Your task to perform on an android device: Open the phone app and click the voicemail tab. Image 0: 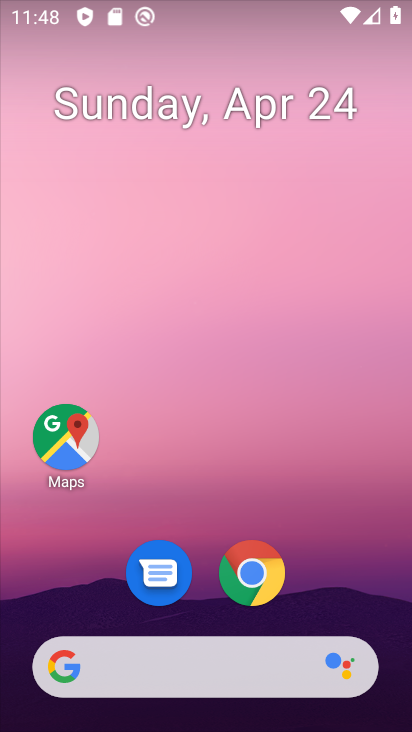
Step 0: drag from (323, 566) to (262, 20)
Your task to perform on an android device: Open the phone app and click the voicemail tab. Image 1: 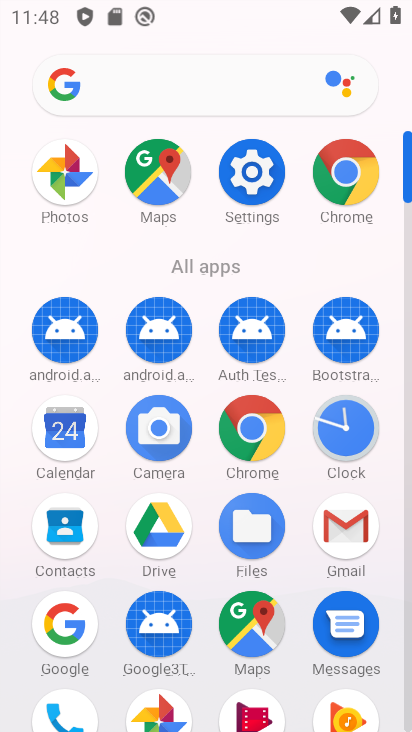
Step 1: drag from (386, 616) to (361, 274)
Your task to perform on an android device: Open the phone app and click the voicemail tab. Image 2: 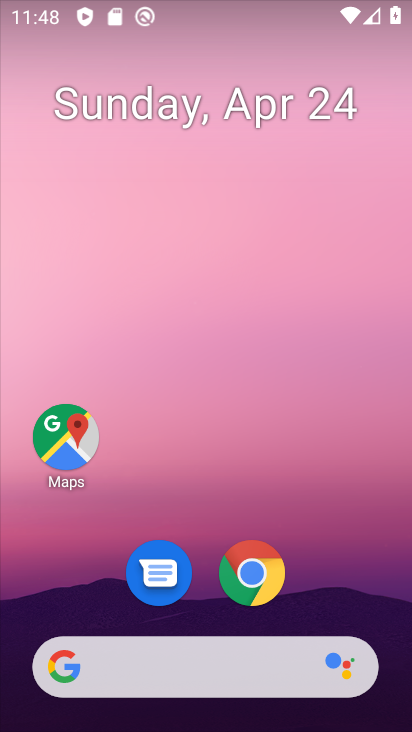
Step 2: drag from (368, 367) to (397, 101)
Your task to perform on an android device: Open the phone app and click the voicemail tab. Image 3: 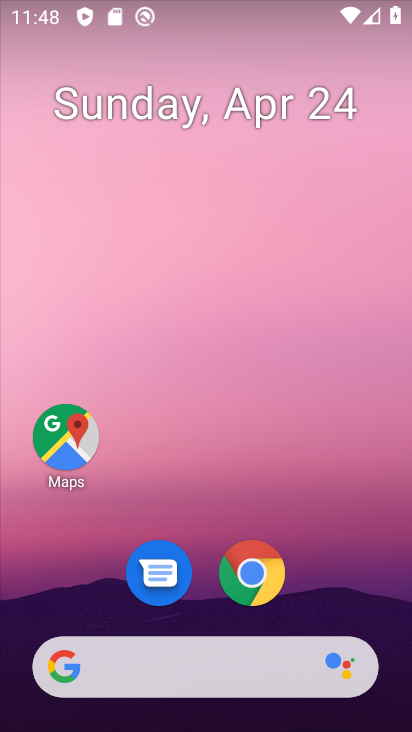
Step 3: drag from (323, 548) to (373, 78)
Your task to perform on an android device: Open the phone app and click the voicemail tab. Image 4: 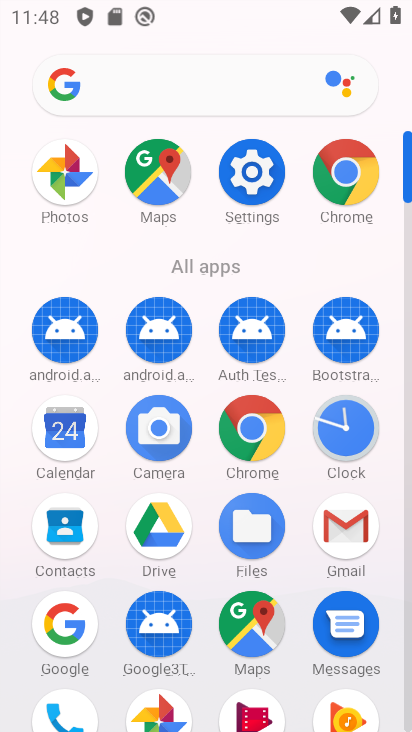
Step 4: drag from (399, 614) to (356, 260)
Your task to perform on an android device: Open the phone app and click the voicemail tab. Image 5: 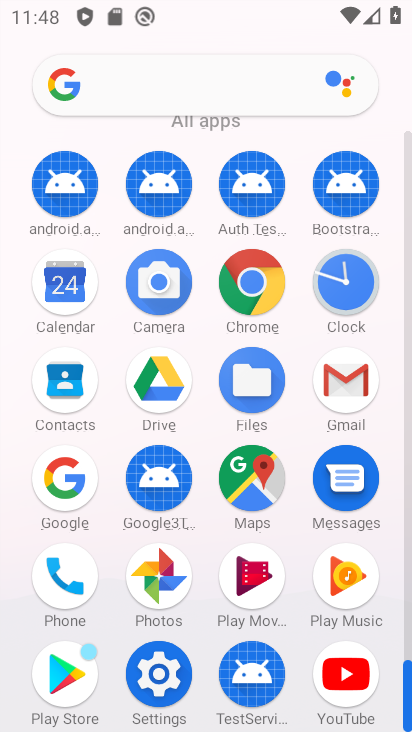
Step 5: click (78, 583)
Your task to perform on an android device: Open the phone app and click the voicemail tab. Image 6: 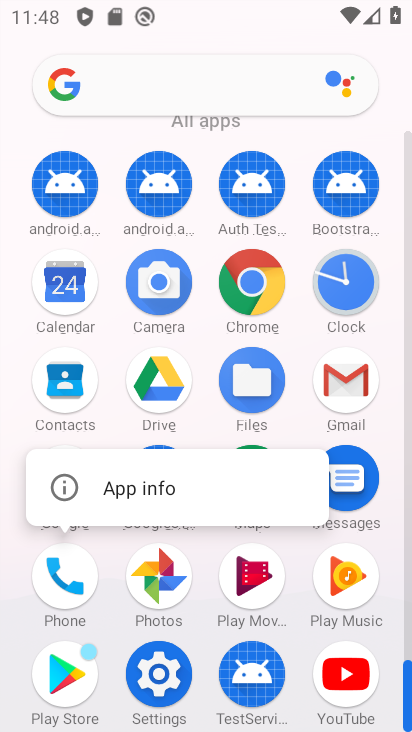
Step 6: click (58, 566)
Your task to perform on an android device: Open the phone app and click the voicemail tab. Image 7: 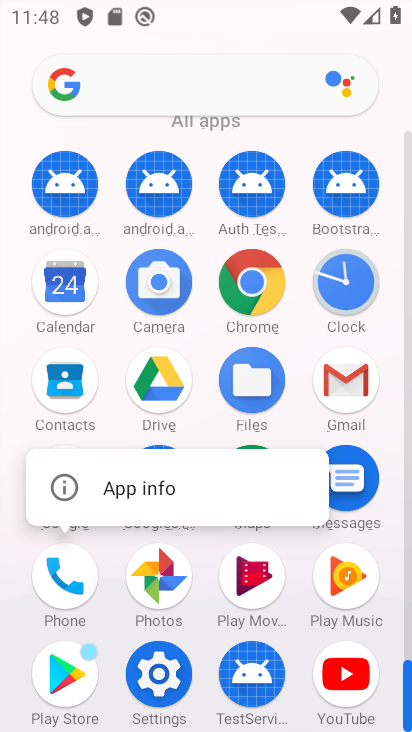
Step 7: click (81, 584)
Your task to perform on an android device: Open the phone app and click the voicemail tab. Image 8: 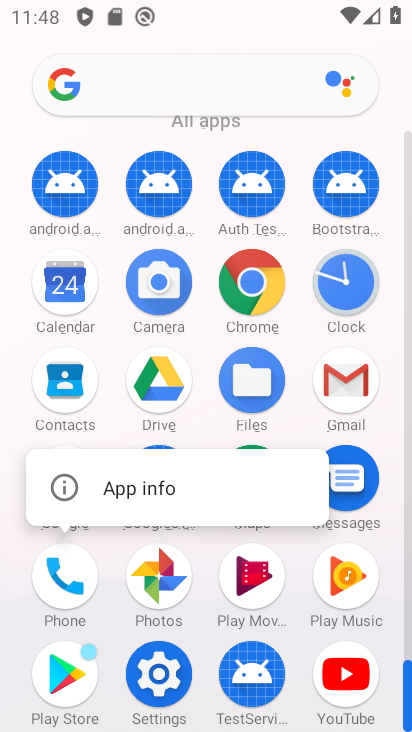
Step 8: click (81, 584)
Your task to perform on an android device: Open the phone app and click the voicemail tab. Image 9: 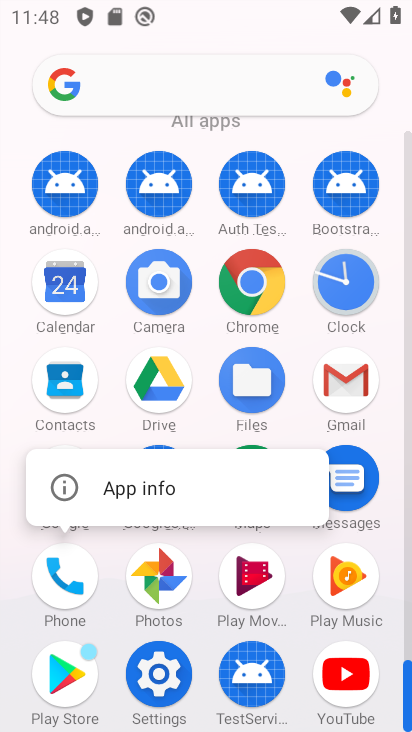
Step 9: click (81, 584)
Your task to perform on an android device: Open the phone app and click the voicemail tab. Image 10: 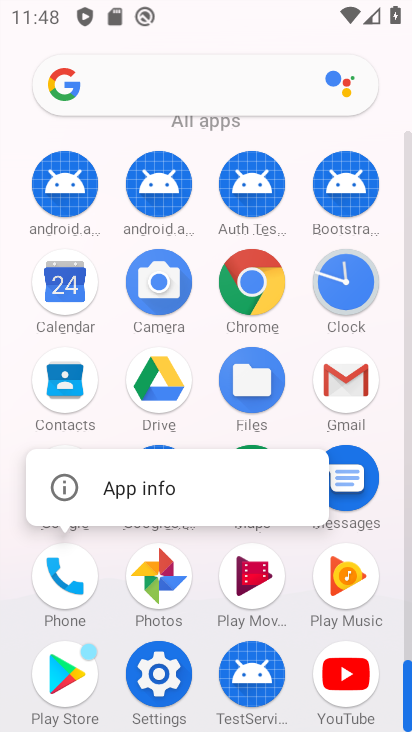
Step 10: click (81, 584)
Your task to perform on an android device: Open the phone app and click the voicemail tab. Image 11: 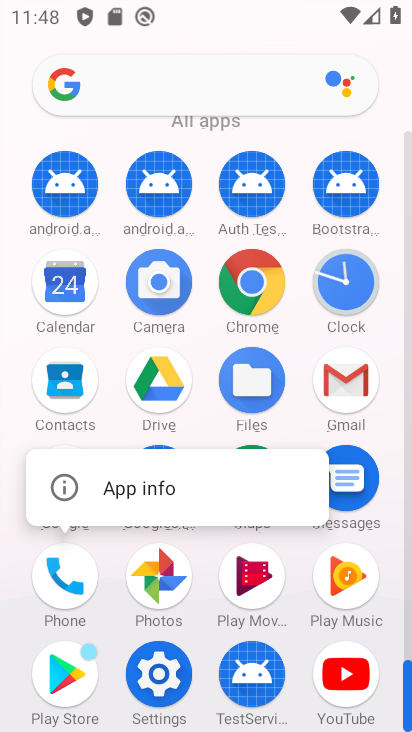
Step 11: click (81, 584)
Your task to perform on an android device: Open the phone app and click the voicemail tab. Image 12: 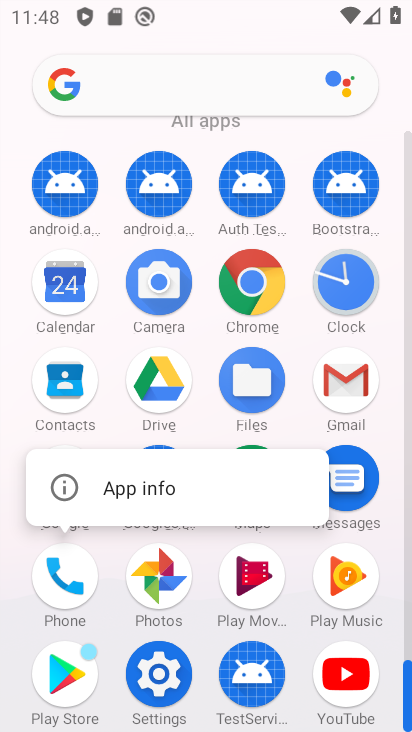
Step 12: click (81, 584)
Your task to perform on an android device: Open the phone app and click the voicemail tab. Image 13: 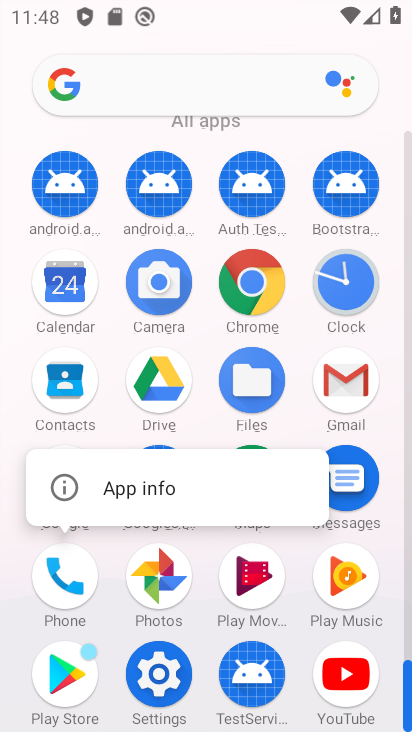
Step 13: click (81, 584)
Your task to perform on an android device: Open the phone app and click the voicemail tab. Image 14: 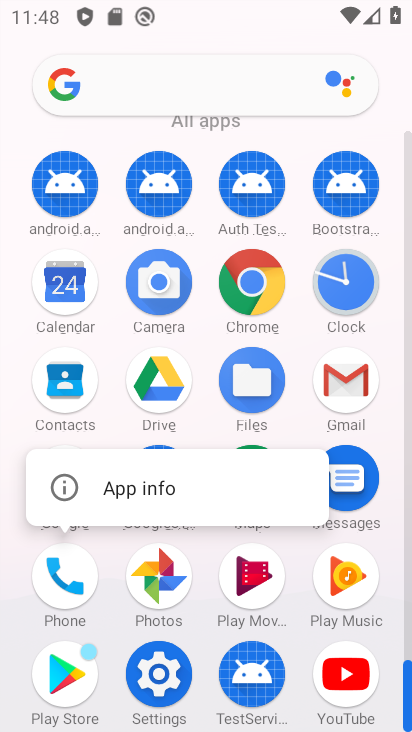
Step 14: click (81, 584)
Your task to perform on an android device: Open the phone app and click the voicemail tab. Image 15: 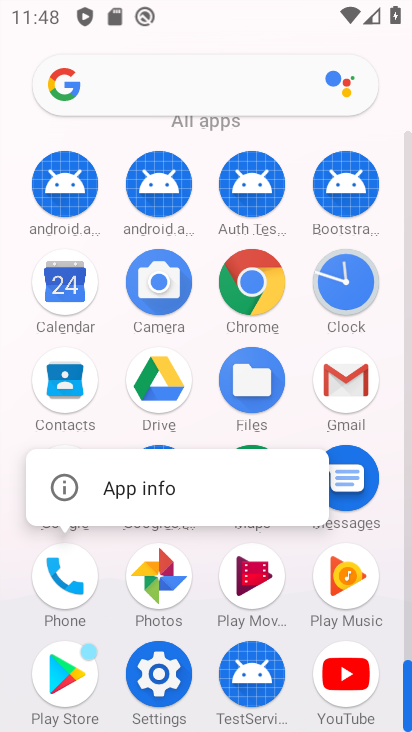
Step 15: click (81, 584)
Your task to perform on an android device: Open the phone app and click the voicemail tab. Image 16: 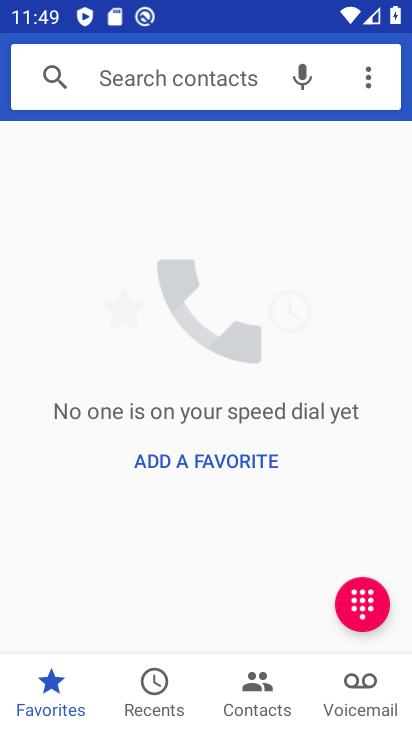
Step 16: click (354, 696)
Your task to perform on an android device: Open the phone app and click the voicemail tab. Image 17: 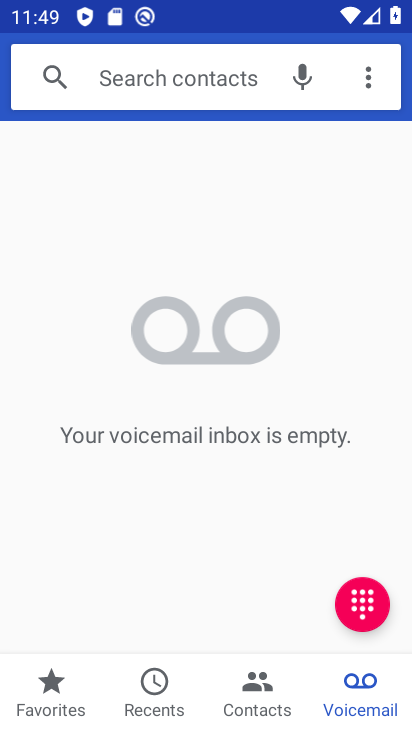
Step 17: task complete